Your task to perform on an android device: Show me recent news Image 0: 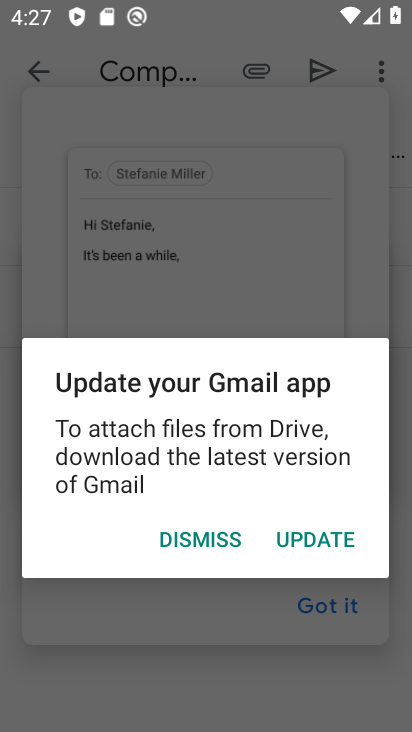
Step 0: press home button
Your task to perform on an android device: Show me recent news Image 1: 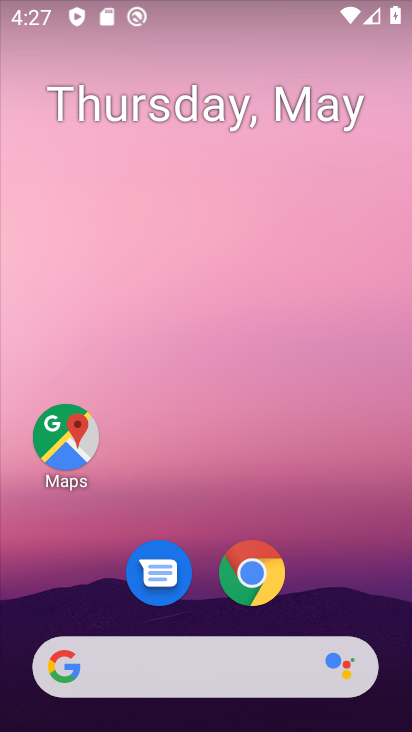
Step 1: click (315, 120)
Your task to perform on an android device: Show me recent news Image 2: 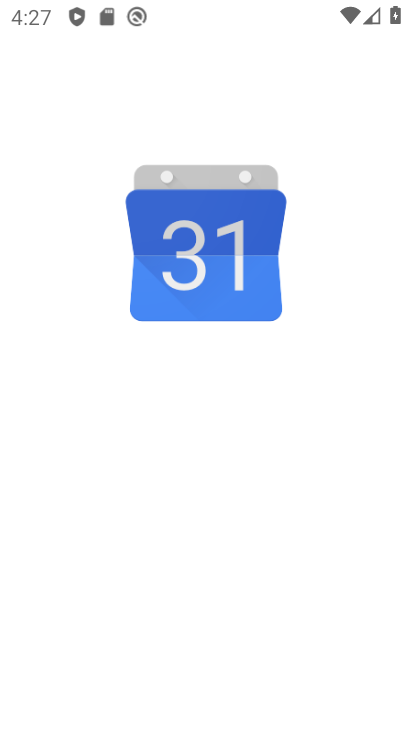
Step 2: click (301, 604)
Your task to perform on an android device: Show me recent news Image 3: 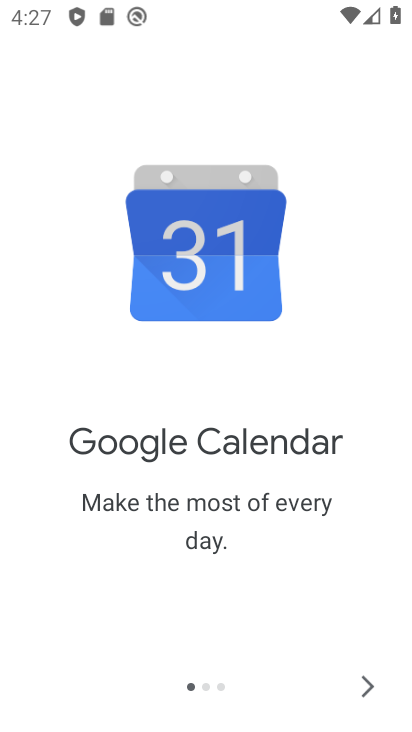
Step 3: press home button
Your task to perform on an android device: Show me recent news Image 4: 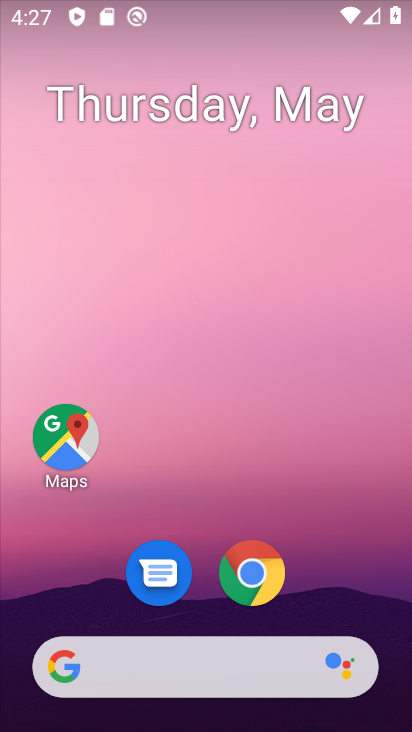
Step 4: click (166, 678)
Your task to perform on an android device: Show me recent news Image 5: 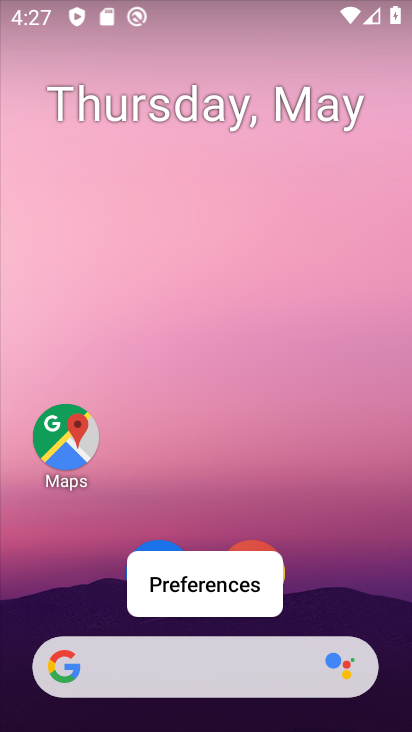
Step 5: click (211, 677)
Your task to perform on an android device: Show me recent news Image 6: 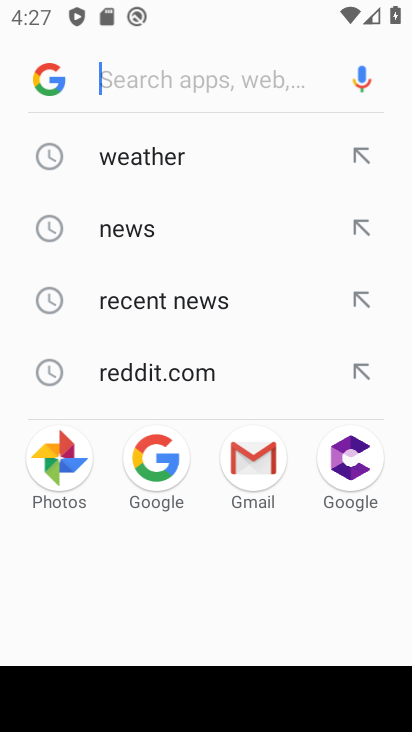
Step 6: click (177, 302)
Your task to perform on an android device: Show me recent news Image 7: 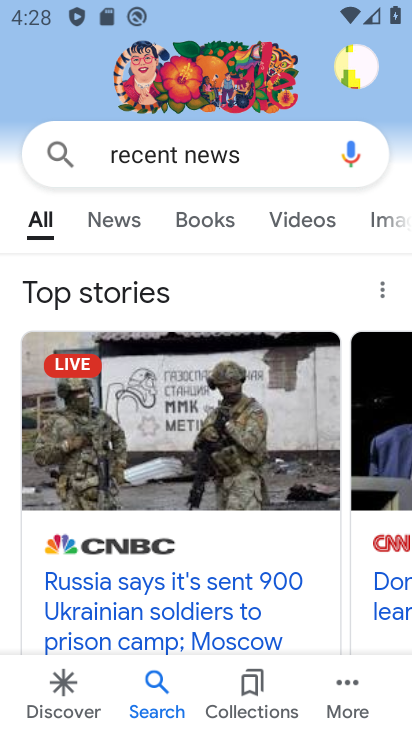
Step 7: task complete